Your task to perform on an android device: Go to wifi settings Image 0: 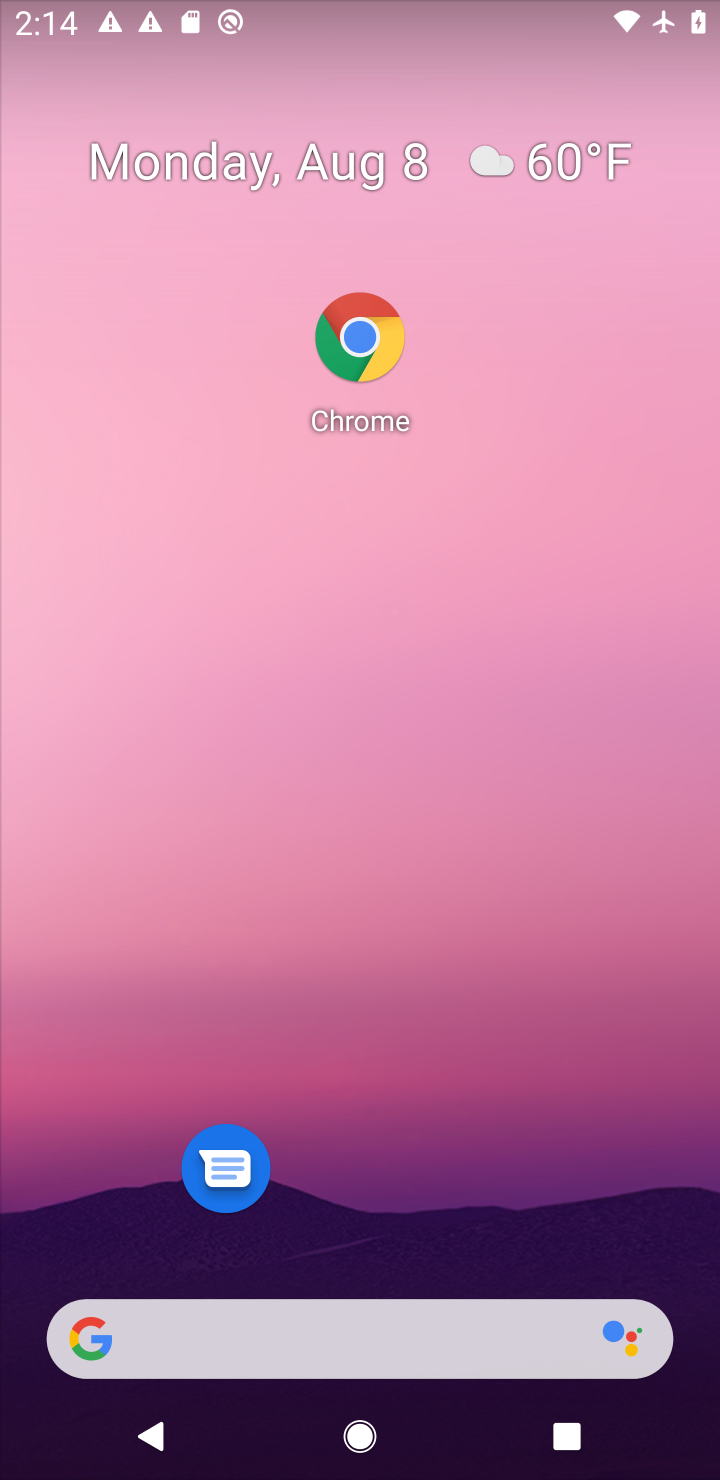
Step 0: drag from (445, 1279) to (292, 130)
Your task to perform on an android device: Go to wifi settings Image 1: 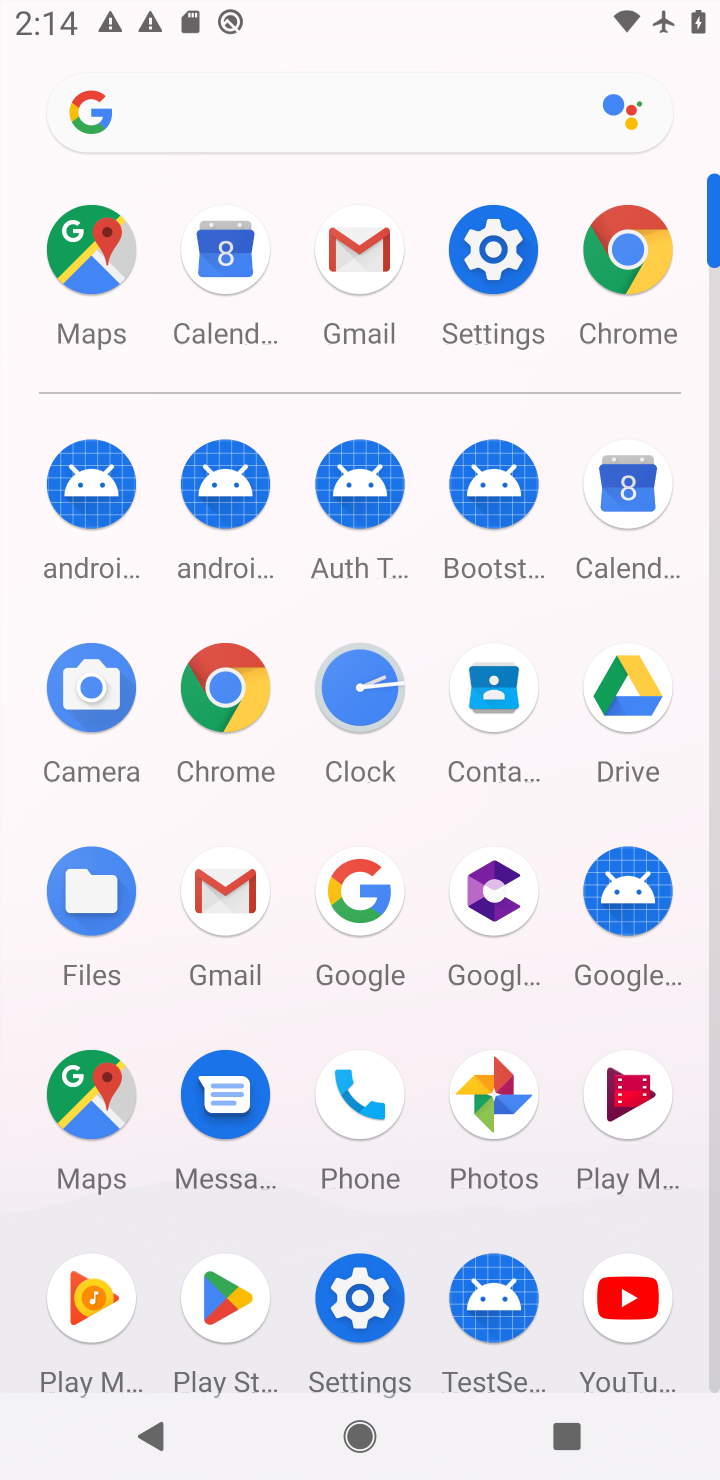
Step 1: click (437, 266)
Your task to perform on an android device: Go to wifi settings Image 2: 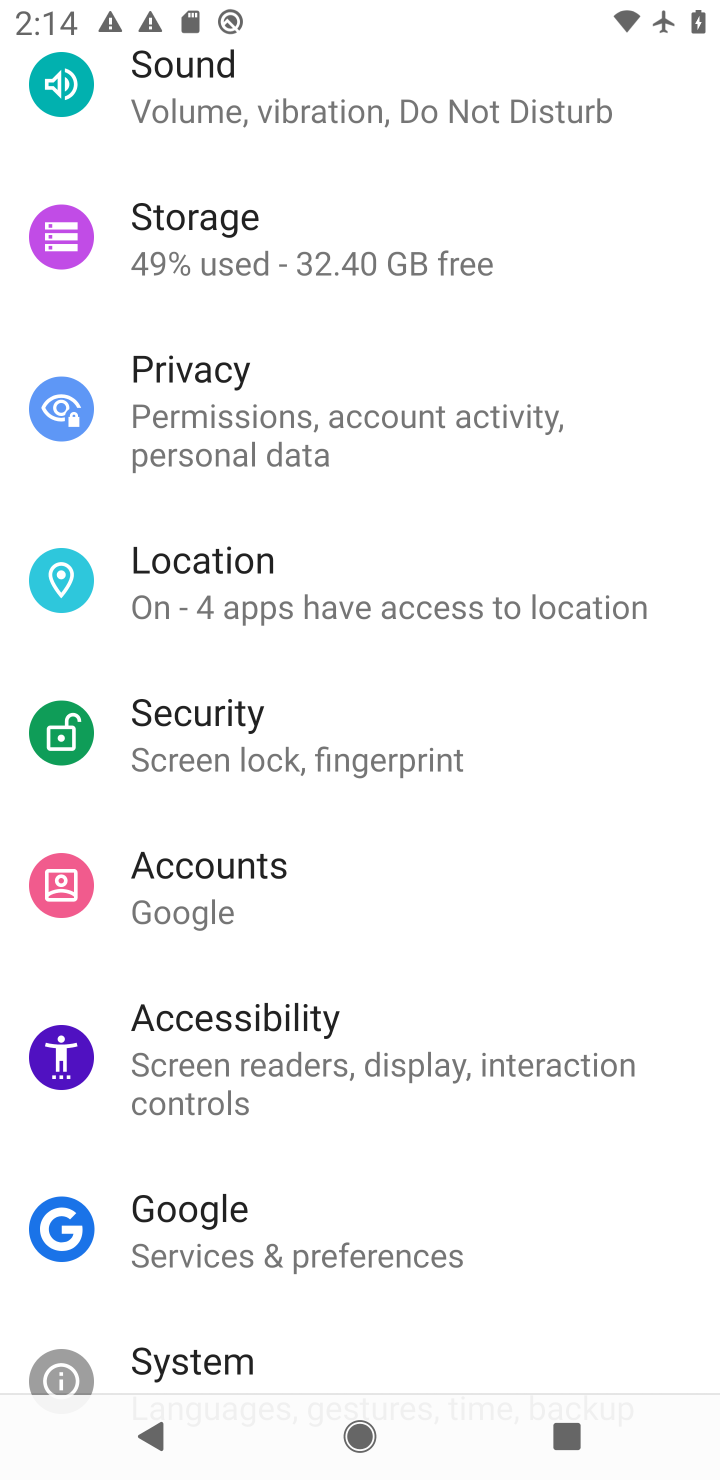
Step 2: drag from (436, 373) to (427, 973)
Your task to perform on an android device: Go to wifi settings Image 3: 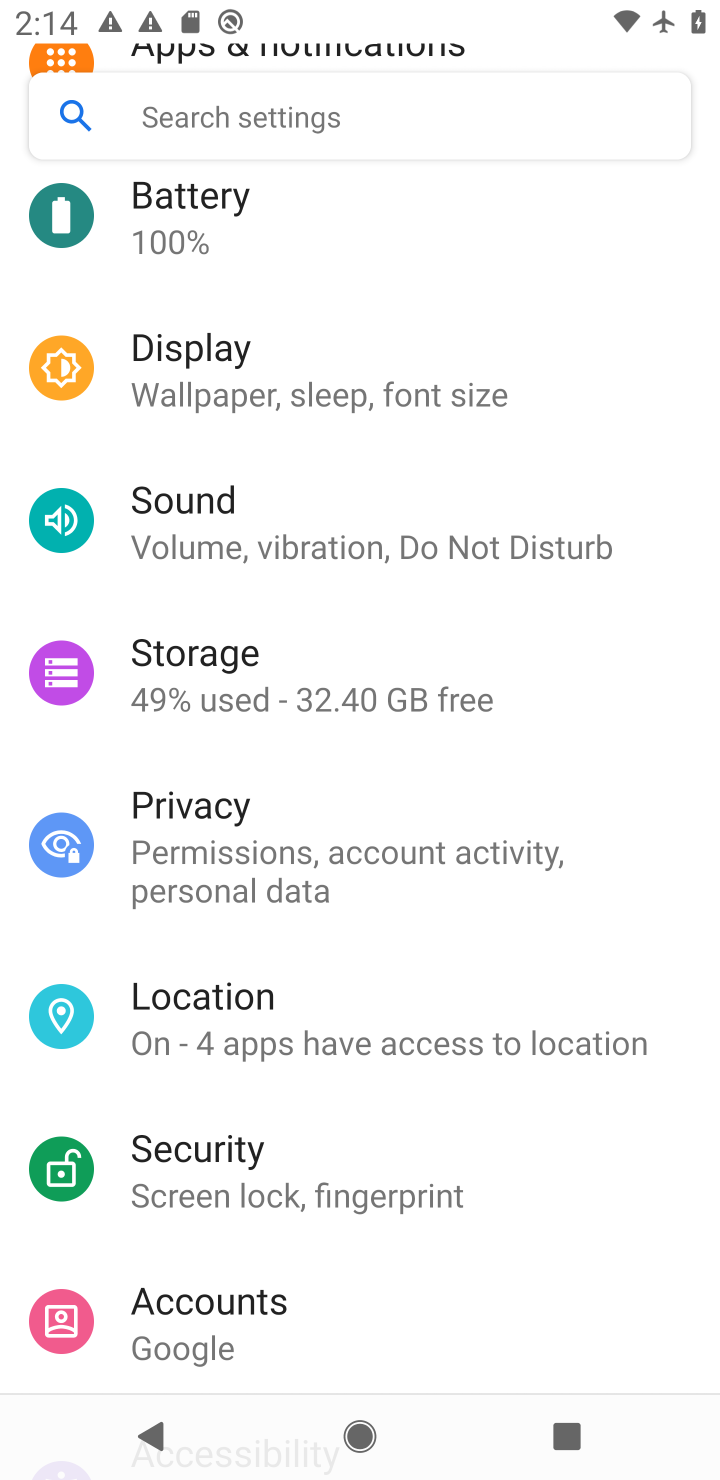
Step 3: drag from (396, 292) to (370, 579)
Your task to perform on an android device: Go to wifi settings Image 4: 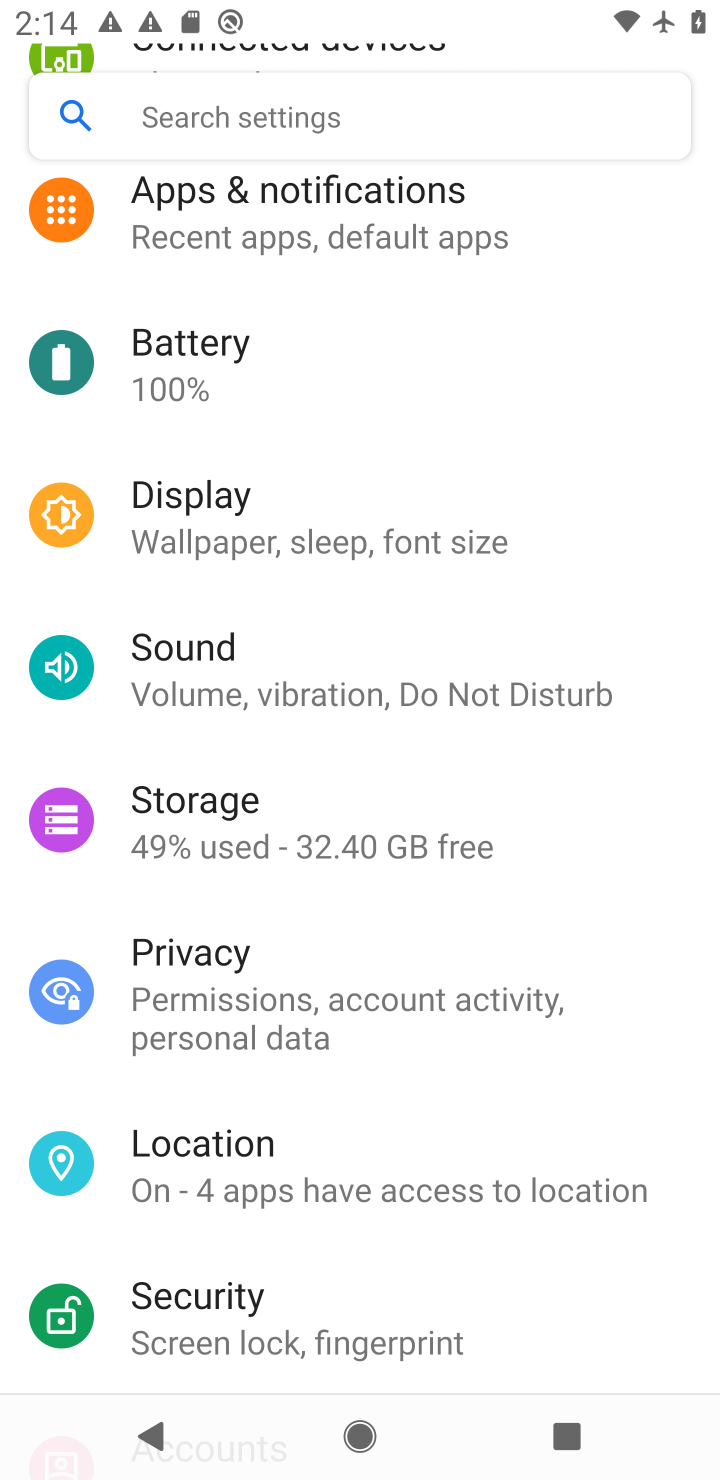
Step 4: drag from (375, 270) to (356, 709)
Your task to perform on an android device: Go to wifi settings Image 5: 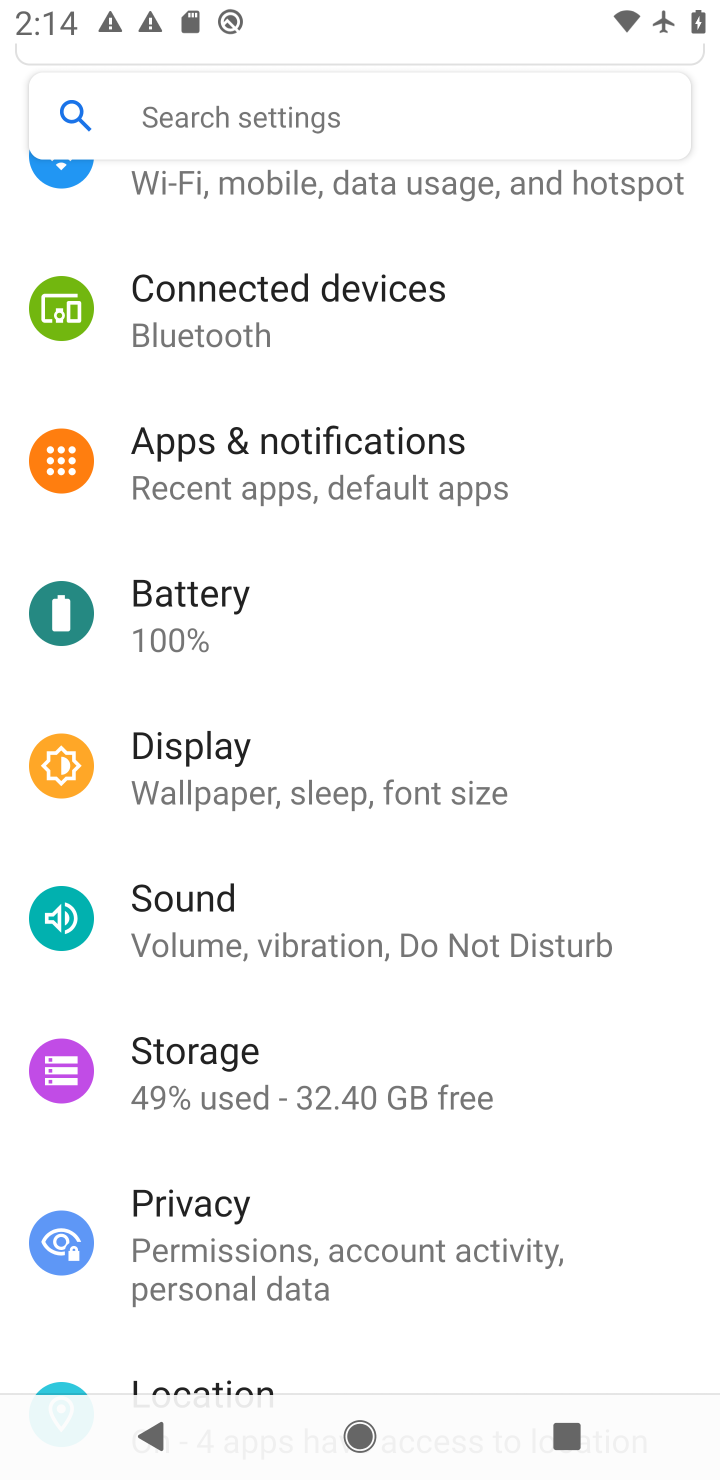
Step 5: click (394, 208)
Your task to perform on an android device: Go to wifi settings Image 6: 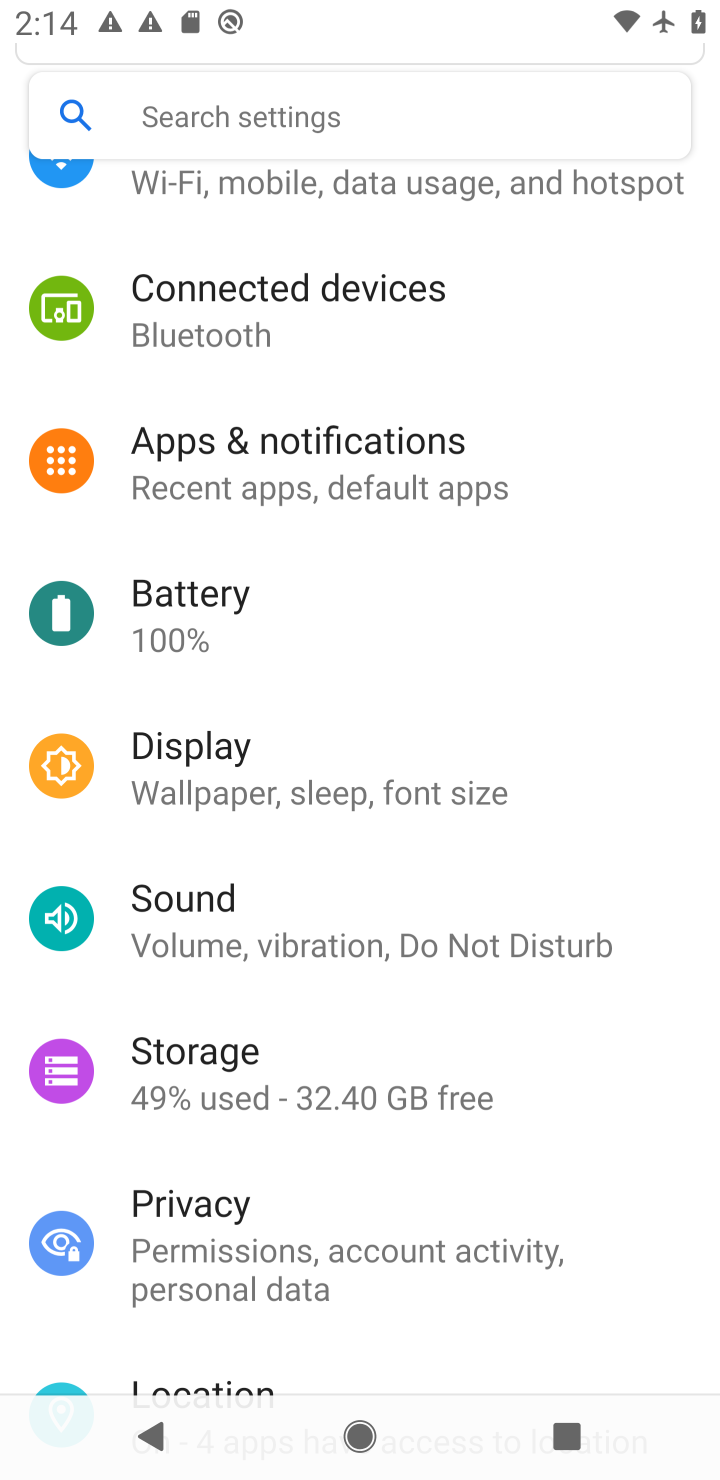
Step 6: task complete